Your task to perform on an android device: turn on the 12-hour format for clock Image 0: 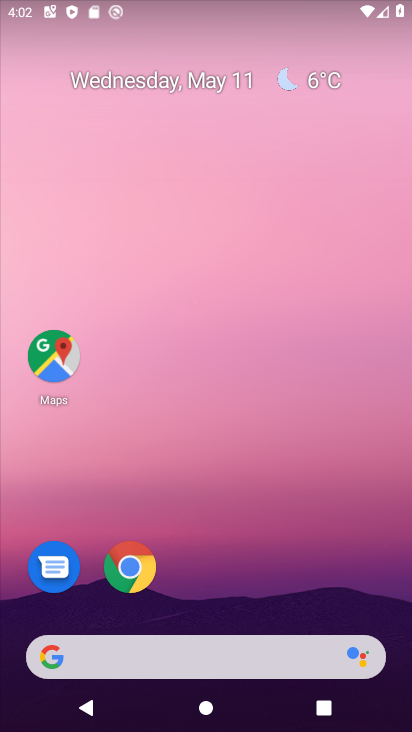
Step 0: drag from (284, 550) to (314, 173)
Your task to perform on an android device: turn on the 12-hour format for clock Image 1: 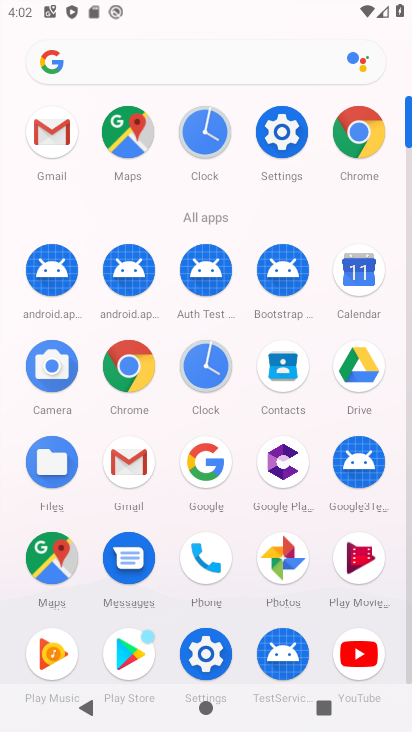
Step 1: click (212, 357)
Your task to perform on an android device: turn on the 12-hour format for clock Image 2: 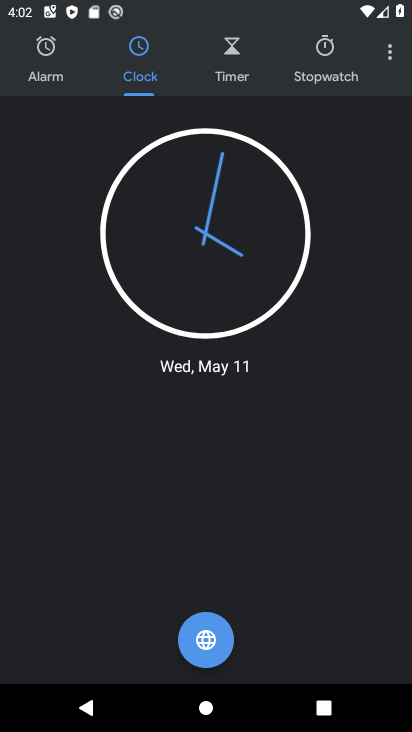
Step 2: click (389, 50)
Your task to perform on an android device: turn on the 12-hour format for clock Image 3: 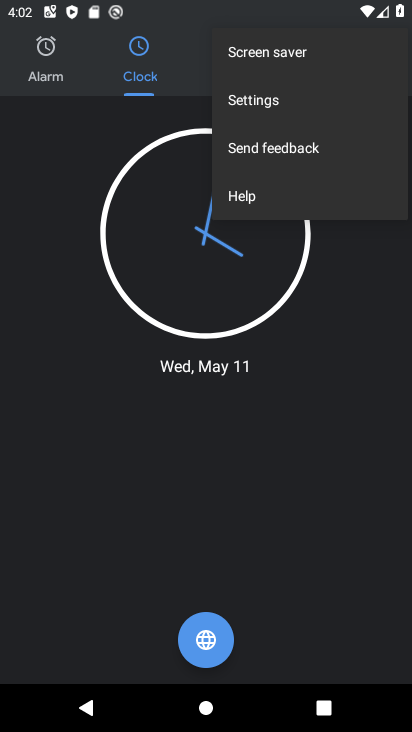
Step 3: click (299, 102)
Your task to perform on an android device: turn on the 12-hour format for clock Image 4: 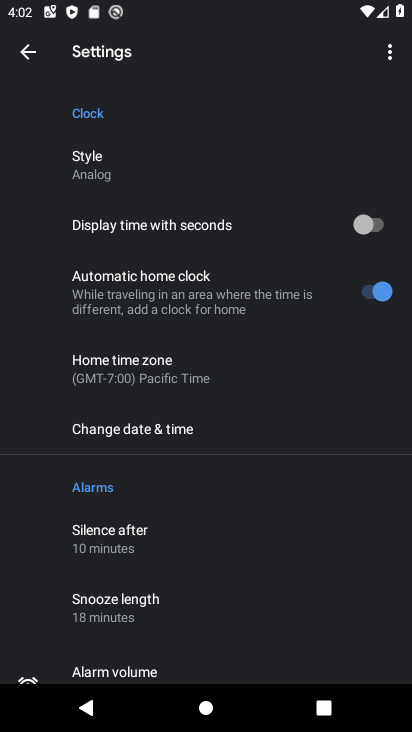
Step 4: click (171, 433)
Your task to perform on an android device: turn on the 12-hour format for clock Image 5: 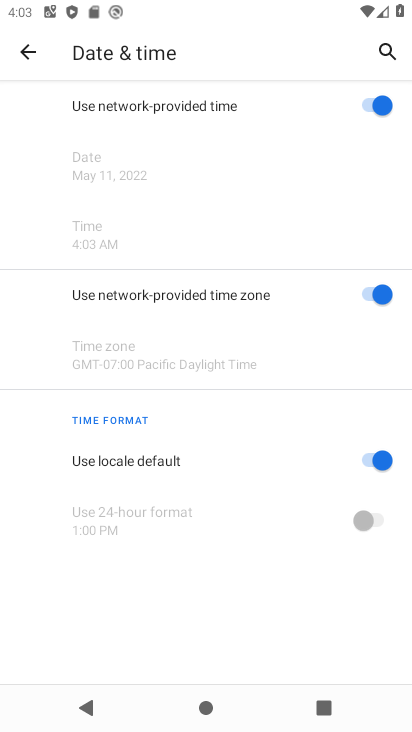
Step 5: click (371, 454)
Your task to perform on an android device: turn on the 12-hour format for clock Image 6: 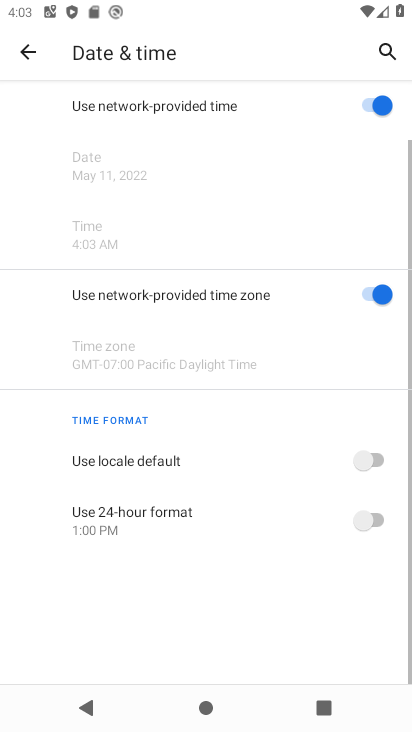
Step 6: click (365, 511)
Your task to perform on an android device: turn on the 12-hour format for clock Image 7: 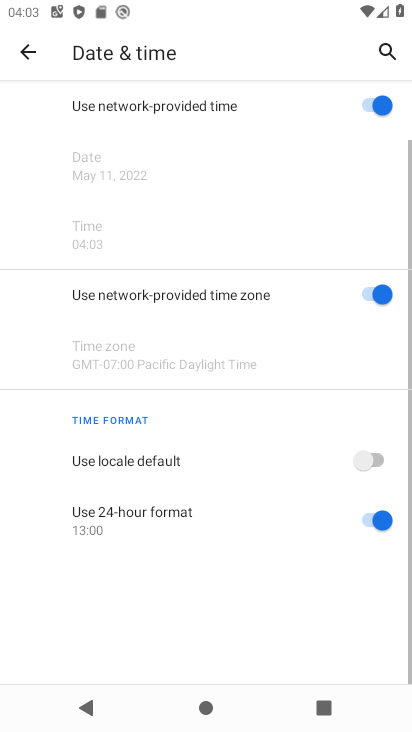
Step 7: task complete